Your task to perform on an android device: check storage Image 0: 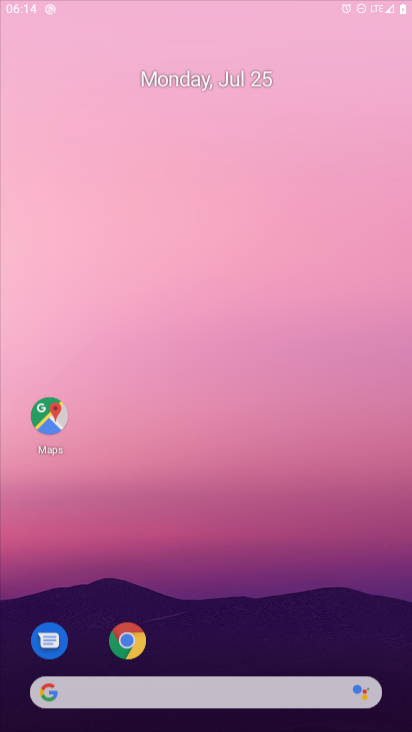
Step 0: press home button
Your task to perform on an android device: check storage Image 1: 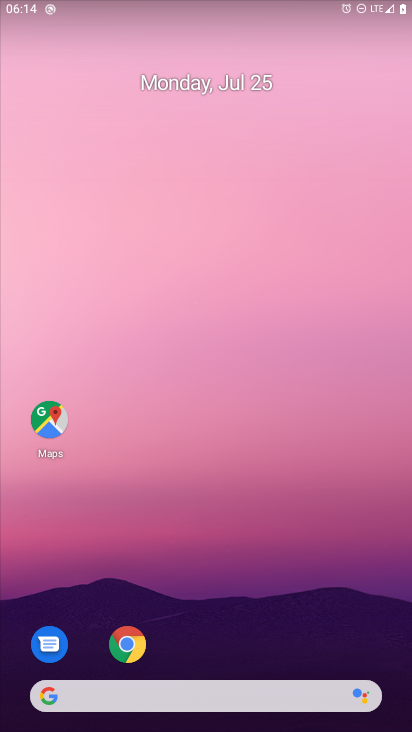
Step 1: drag from (305, 637) to (219, 35)
Your task to perform on an android device: check storage Image 2: 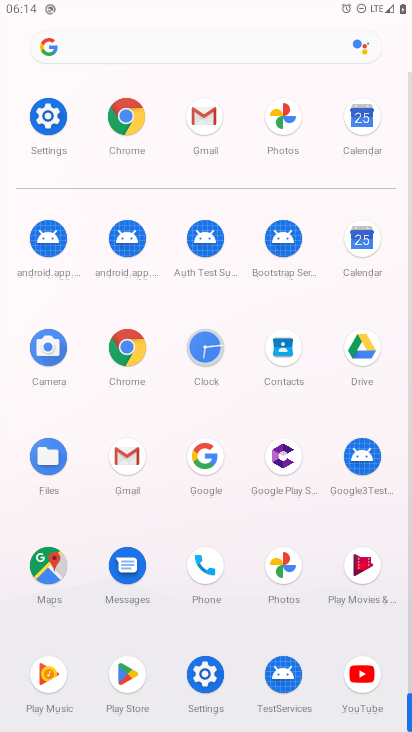
Step 2: click (42, 128)
Your task to perform on an android device: check storage Image 3: 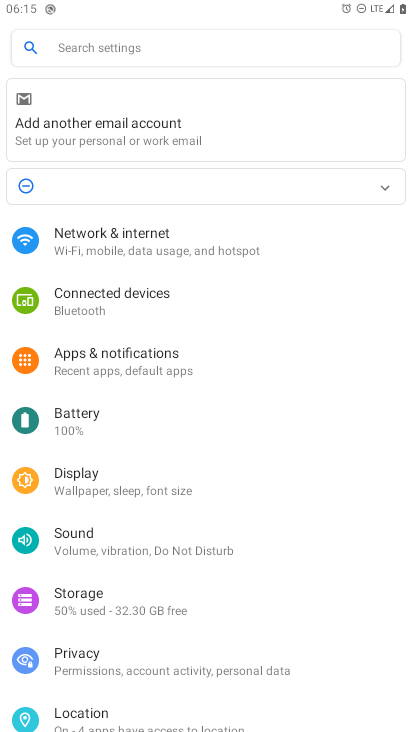
Step 3: click (84, 605)
Your task to perform on an android device: check storage Image 4: 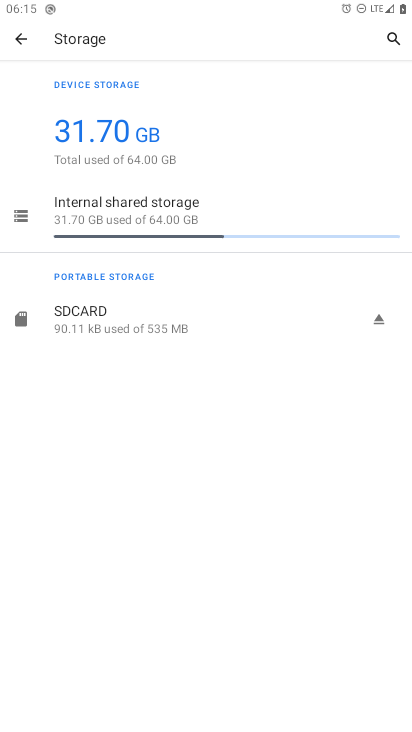
Step 4: task complete